Your task to perform on an android device: Turn off the flashlight Image 0: 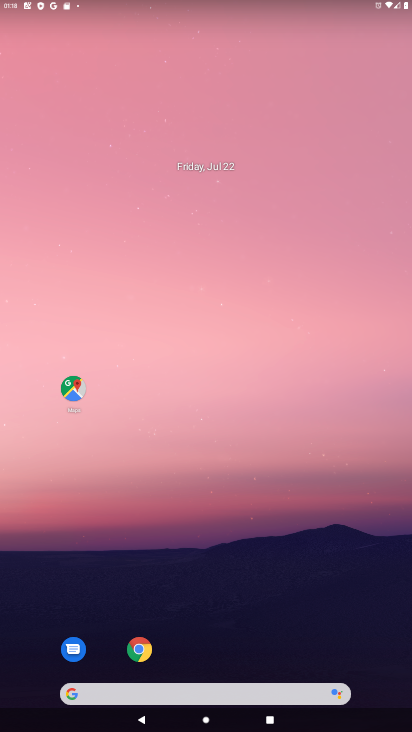
Step 0: press home button
Your task to perform on an android device: Turn off the flashlight Image 1: 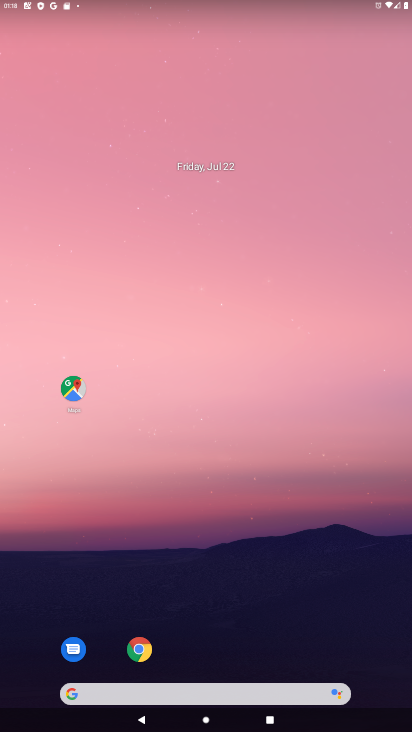
Step 1: drag from (284, 595) to (305, 138)
Your task to perform on an android device: Turn off the flashlight Image 2: 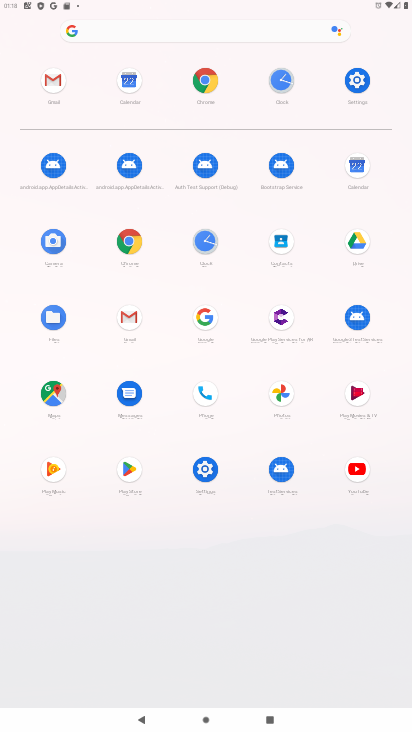
Step 2: click (363, 86)
Your task to perform on an android device: Turn off the flashlight Image 3: 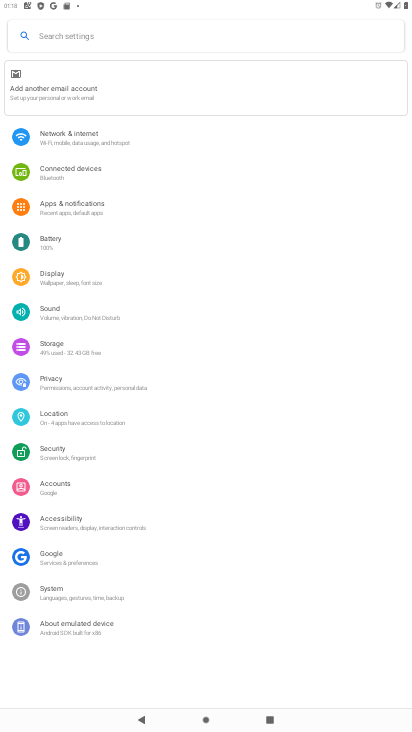
Step 3: click (48, 279)
Your task to perform on an android device: Turn off the flashlight Image 4: 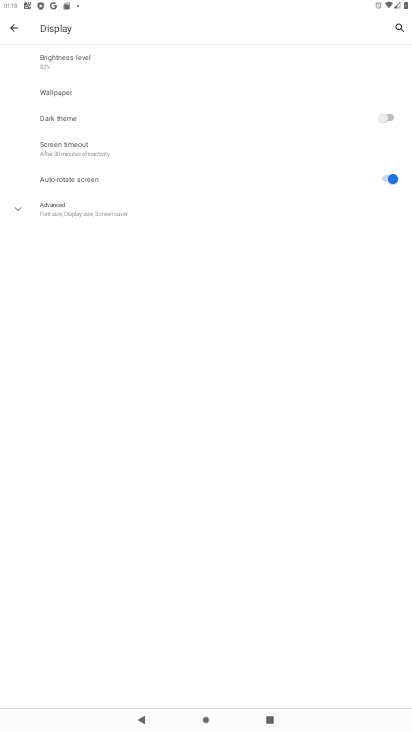
Step 4: click (73, 150)
Your task to perform on an android device: Turn off the flashlight Image 5: 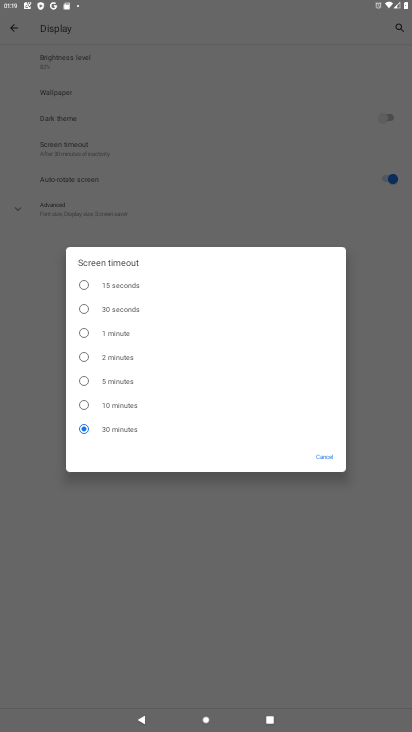
Step 5: task complete